Your task to perform on an android device: Open calendar and show me the second week of next month Image 0: 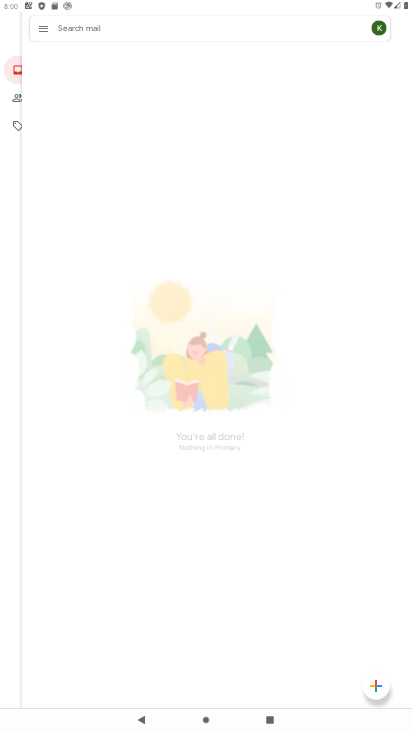
Step 0: press home button
Your task to perform on an android device: Open calendar and show me the second week of next month Image 1: 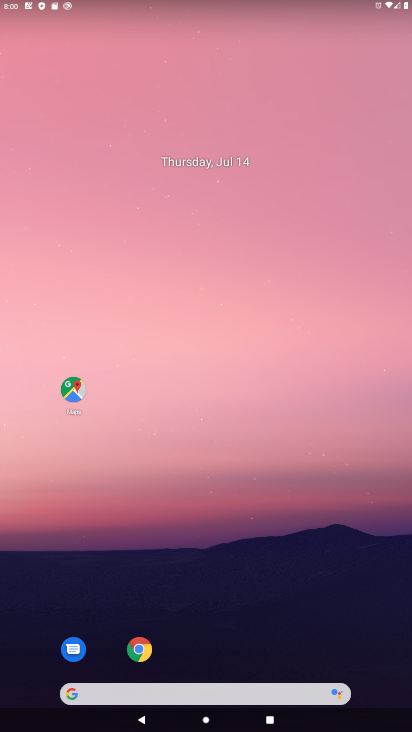
Step 1: drag from (199, 652) to (234, 118)
Your task to perform on an android device: Open calendar and show me the second week of next month Image 2: 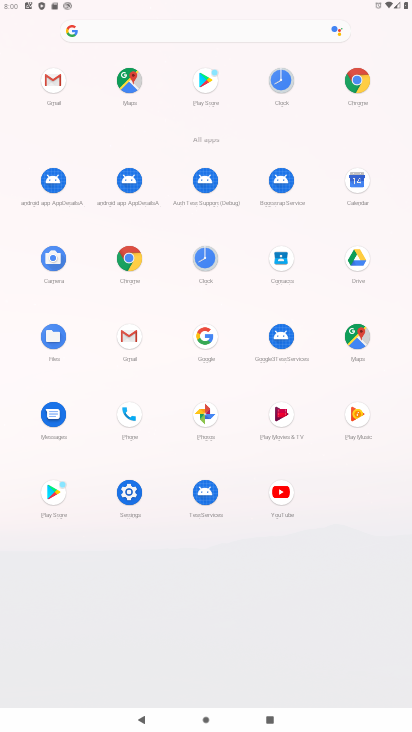
Step 2: click (352, 177)
Your task to perform on an android device: Open calendar and show me the second week of next month Image 3: 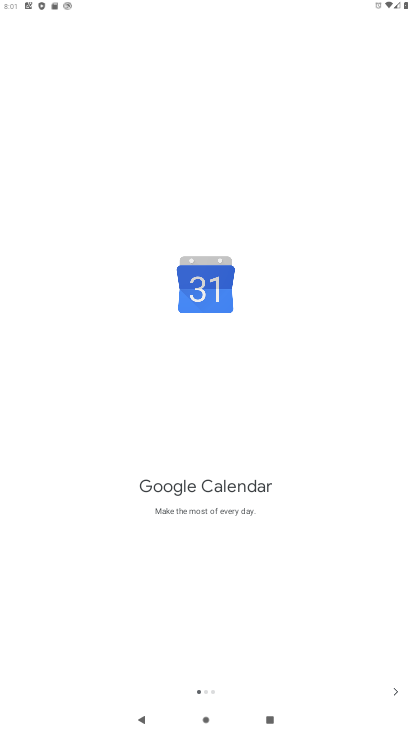
Step 3: click (395, 692)
Your task to perform on an android device: Open calendar and show me the second week of next month Image 4: 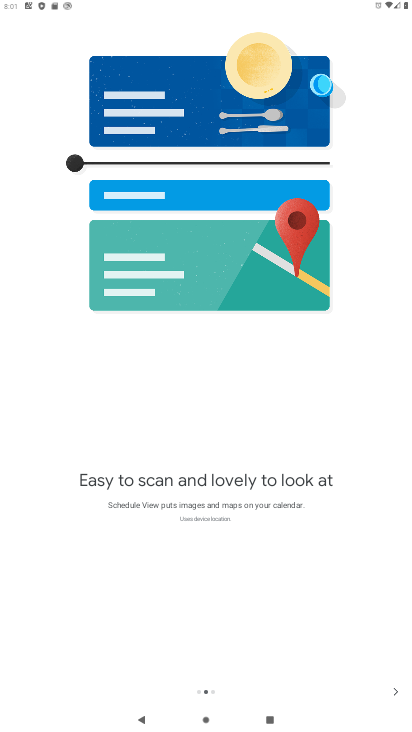
Step 4: click (395, 692)
Your task to perform on an android device: Open calendar and show me the second week of next month Image 5: 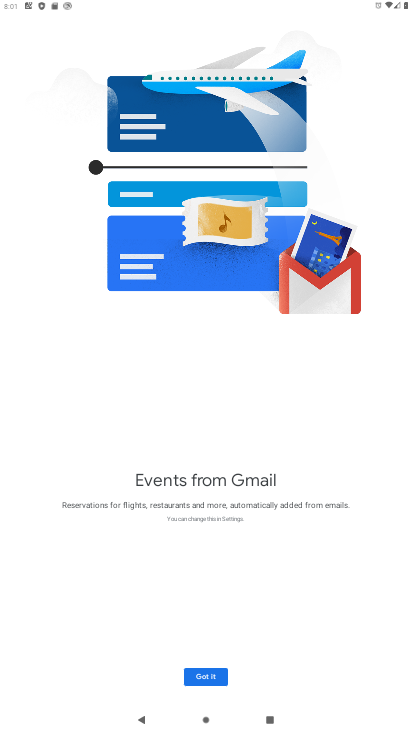
Step 5: click (195, 674)
Your task to perform on an android device: Open calendar and show me the second week of next month Image 6: 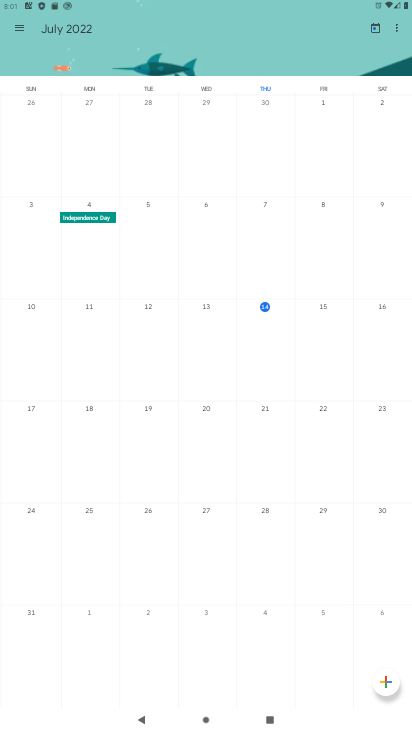
Step 6: drag from (376, 443) to (0, 449)
Your task to perform on an android device: Open calendar and show me the second week of next month Image 7: 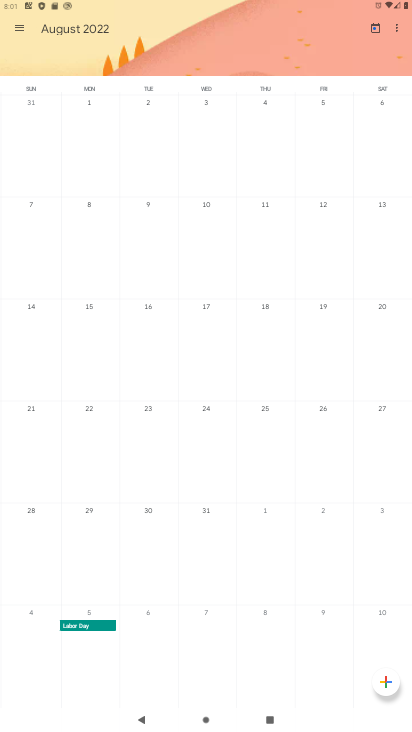
Step 7: click (28, 209)
Your task to perform on an android device: Open calendar and show me the second week of next month Image 8: 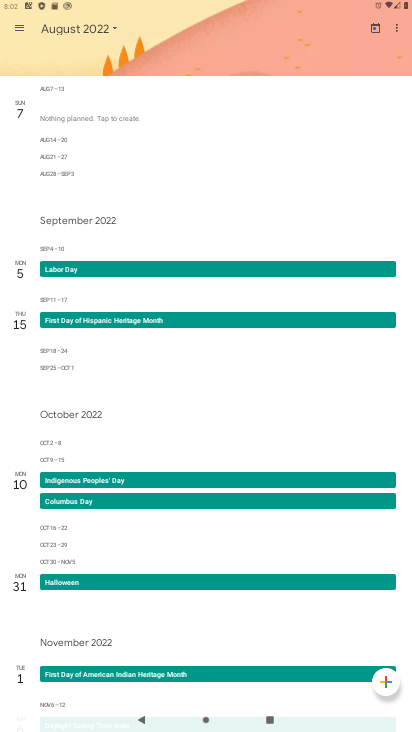
Step 8: click (19, 20)
Your task to perform on an android device: Open calendar and show me the second week of next month Image 9: 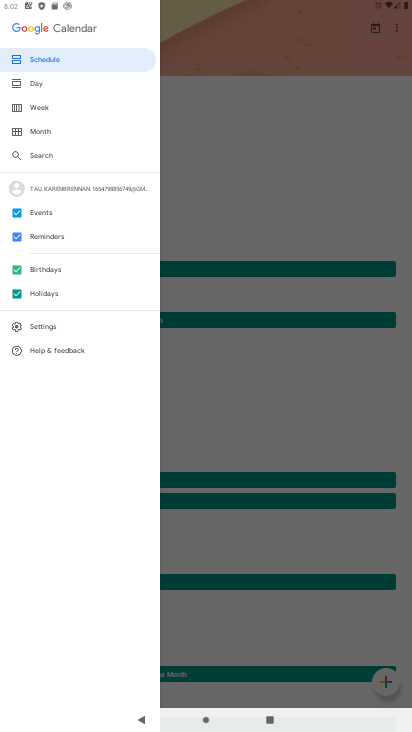
Step 9: click (41, 107)
Your task to perform on an android device: Open calendar and show me the second week of next month Image 10: 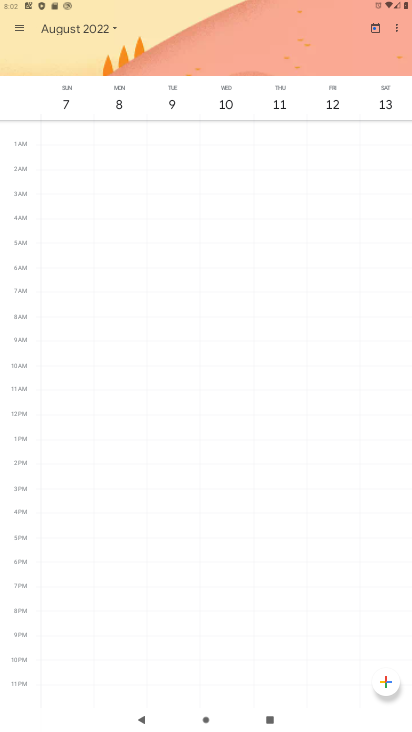
Step 10: task complete